Your task to perform on an android device: Go to internet settings Image 0: 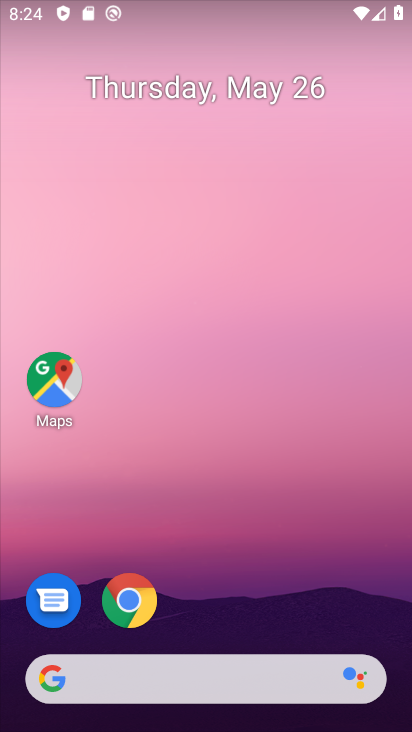
Step 0: drag from (263, 15) to (238, 307)
Your task to perform on an android device: Go to internet settings Image 1: 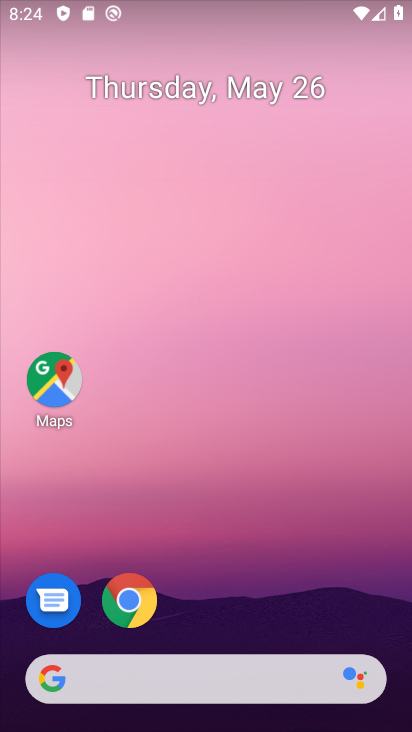
Step 1: drag from (256, 14) to (225, 634)
Your task to perform on an android device: Go to internet settings Image 2: 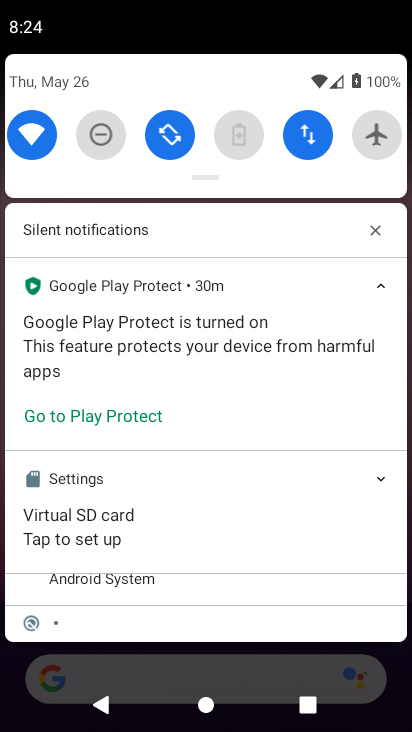
Step 2: click (307, 148)
Your task to perform on an android device: Go to internet settings Image 3: 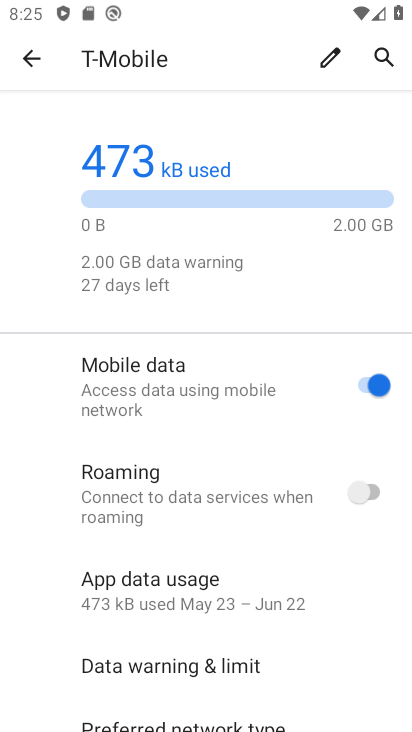
Step 3: task complete